Your task to perform on an android device: Go to ESPN.com Image 0: 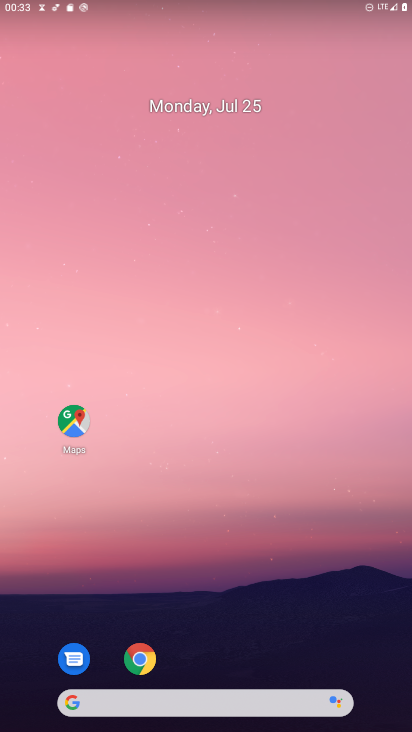
Step 0: drag from (201, 673) to (202, 63)
Your task to perform on an android device: Go to ESPN.com Image 1: 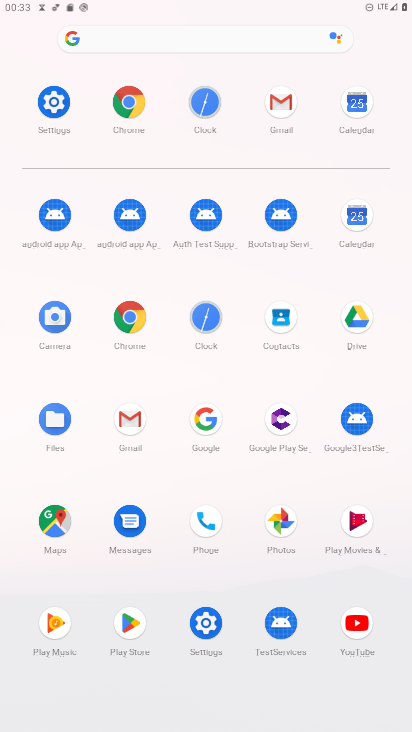
Step 1: click (132, 99)
Your task to perform on an android device: Go to ESPN.com Image 2: 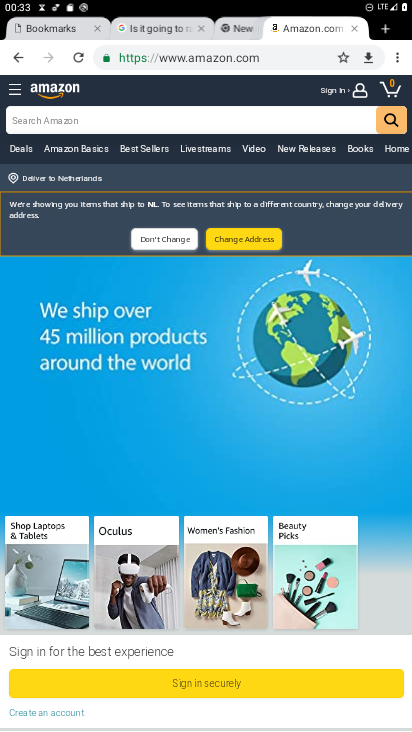
Step 2: click (393, 22)
Your task to perform on an android device: Go to ESPN.com Image 3: 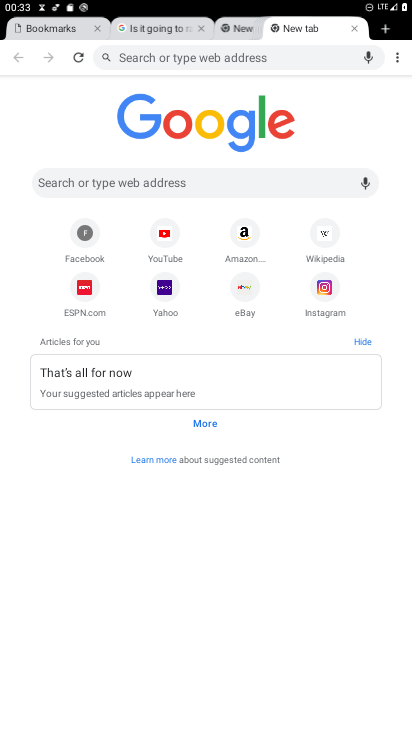
Step 3: click (83, 304)
Your task to perform on an android device: Go to ESPN.com Image 4: 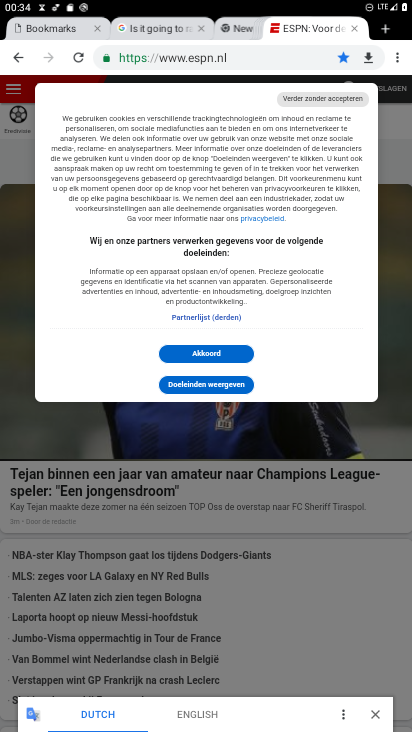
Step 4: task complete